Your task to perform on an android device: Show the shopping cart on target.com. Search for "apple airpods pro" on target.com, select the first entry, and add it to the cart. Image 0: 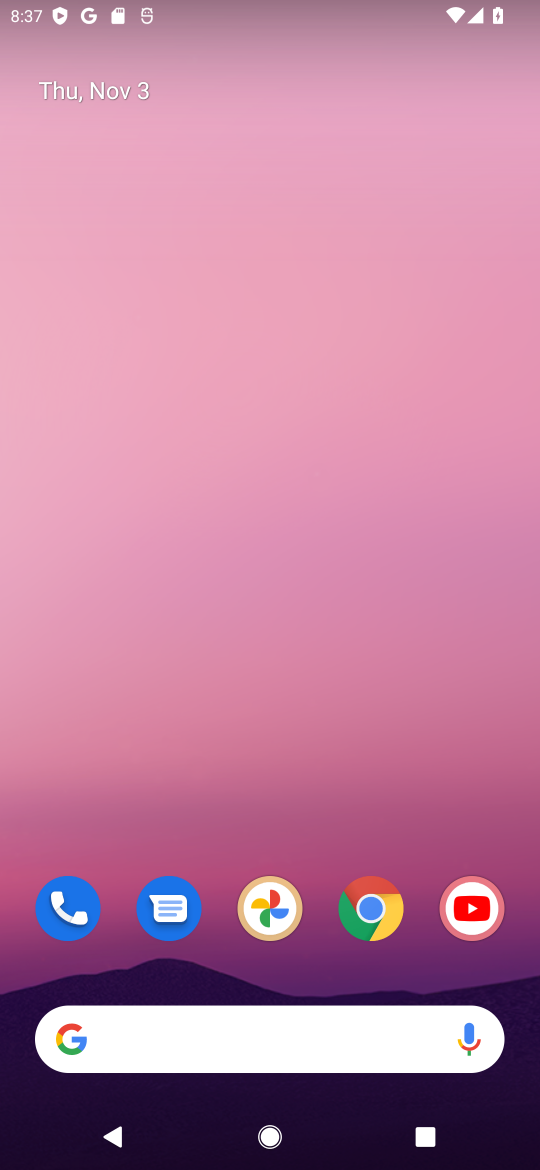
Step 0: click (376, 892)
Your task to perform on an android device: Show the shopping cart on target.com. Search for "apple airpods pro" on target.com, select the first entry, and add it to the cart. Image 1: 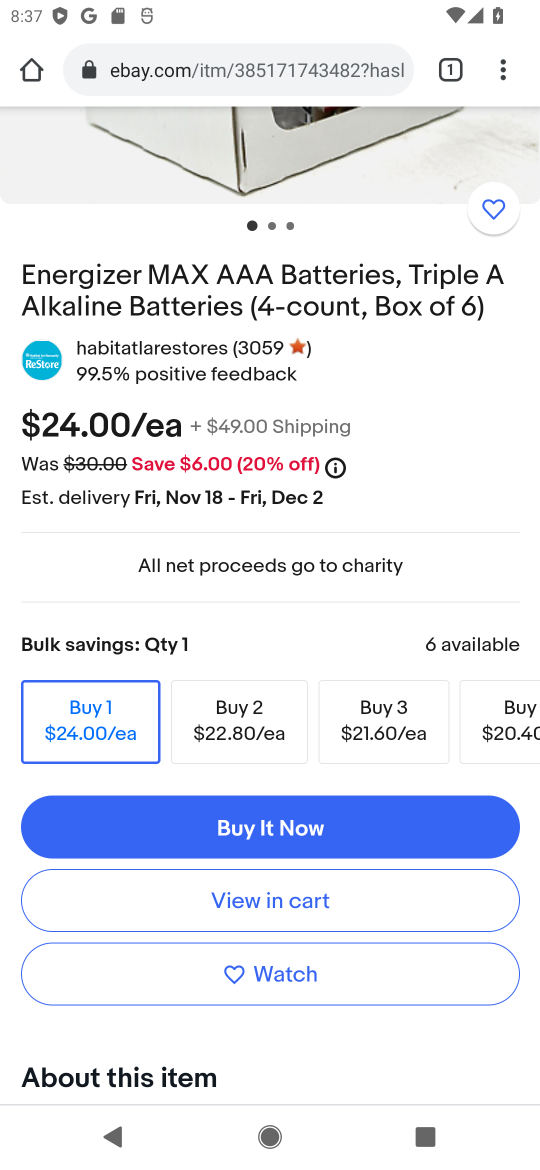
Step 1: click (40, 74)
Your task to perform on an android device: Show the shopping cart on target.com. Search for "apple airpods pro" on target.com, select the first entry, and add it to the cart. Image 2: 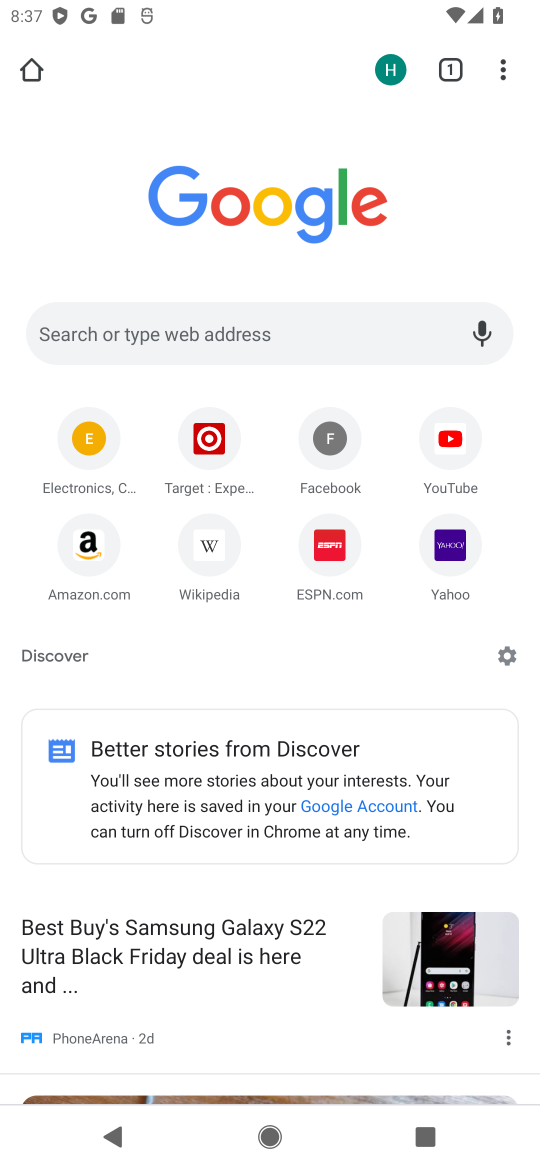
Step 2: click (211, 443)
Your task to perform on an android device: Show the shopping cart on target.com. Search for "apple airpods pro" on target.com, select the first entry, and add it to the cart. Image 3: 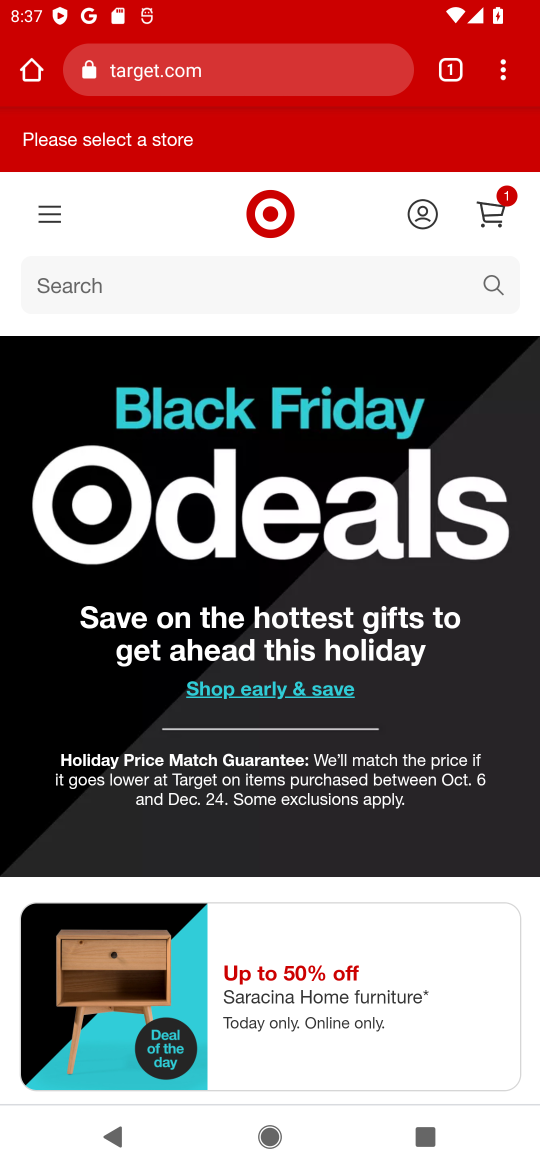
Step 3: click (501, 212)
Your task to perform on an android device: Show the shopping cart on target.com. Search for "apple airpods pro" on target.com, select the first entry, and add it to the cart. Image 4: 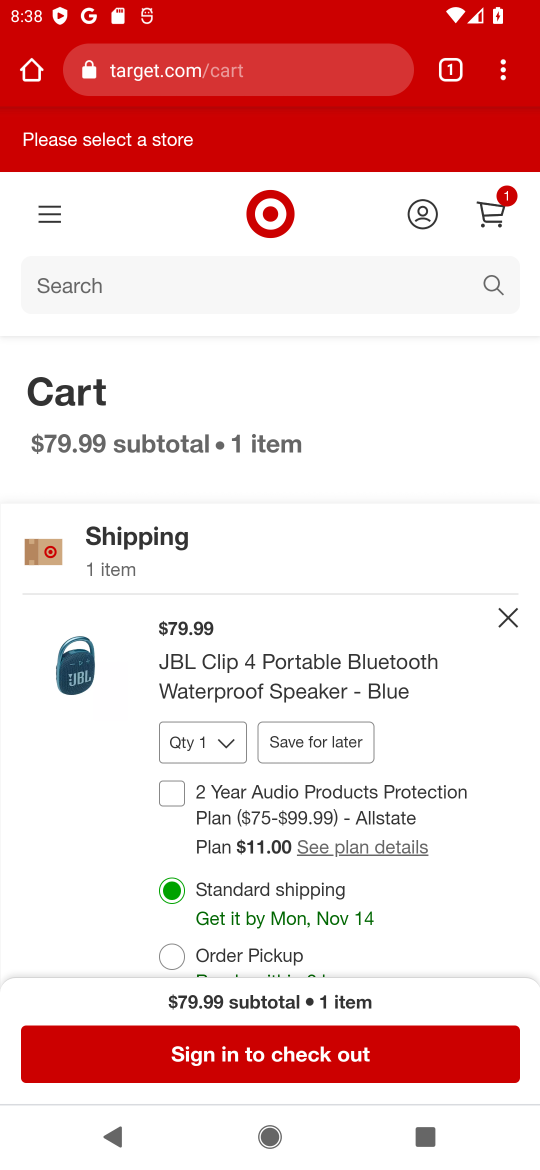
Step 4: click (324, 272)
Your task to perform on an android device: Show the shopping cart on target.com. Search for "apple airpods pro" on target.com, select the first entry, and add it to the cart. Image 5: 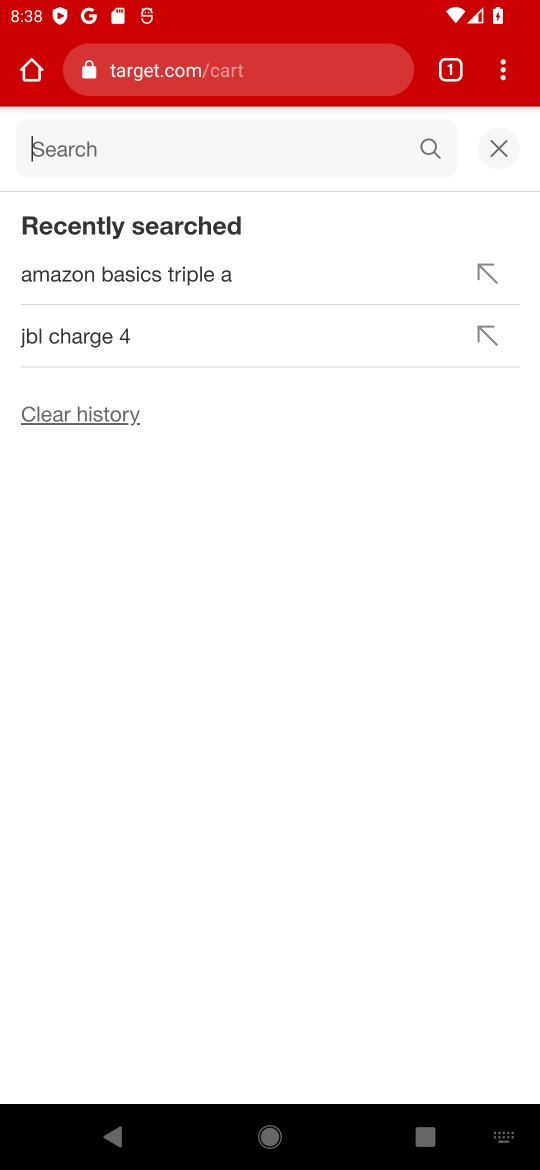
Step 5: type "apple airpods pro"
Your task to perform on an android device: Show the shopping cart on target.com. Search for "apple airpods pro" on target.com, select the first entry, and add it to the cart. Image 6: 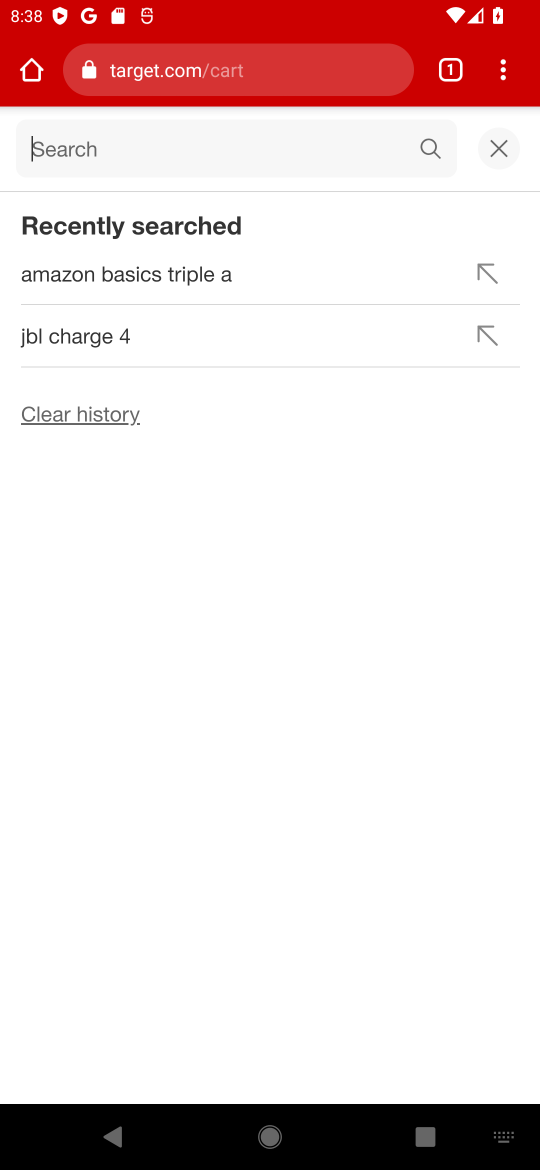
Step 6: press enter
Your task to perform on an android device: Show the shopping cart on target.com. Search for "apple airpods pro" on target.com, select the first entry, and add it to the cart. Image 7: 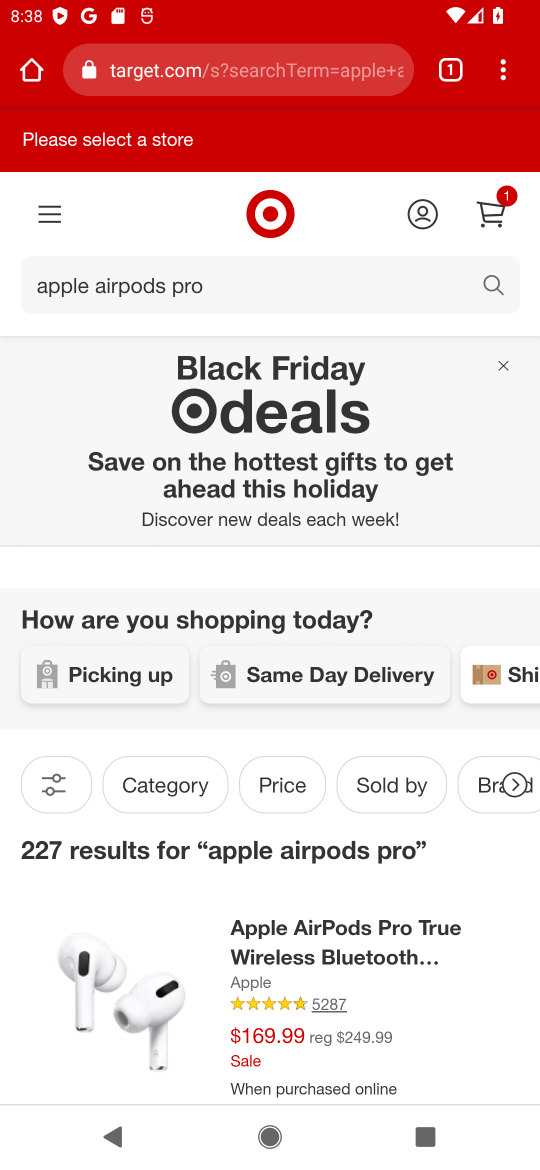
Step 7: drag from (222, 879) to (268, 507)
Your task to perform on an android device: Show the shopping cart on target.com. Search for "apple airpods pro" on target.com, select the first entry, and add it to the cart. Image 8: 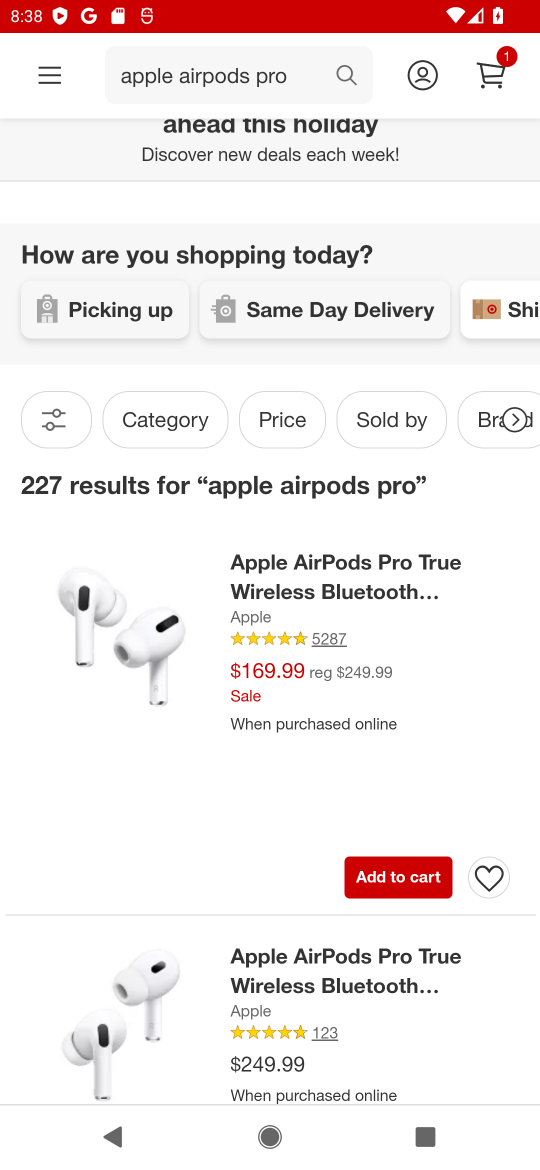
Step 8: click (86, 614)
Your task to perform on an android device: Show the shopping cart on target.com. Search for "apple airpods pro" on target.com, select the first entry, and add it to the cart. Image 9: 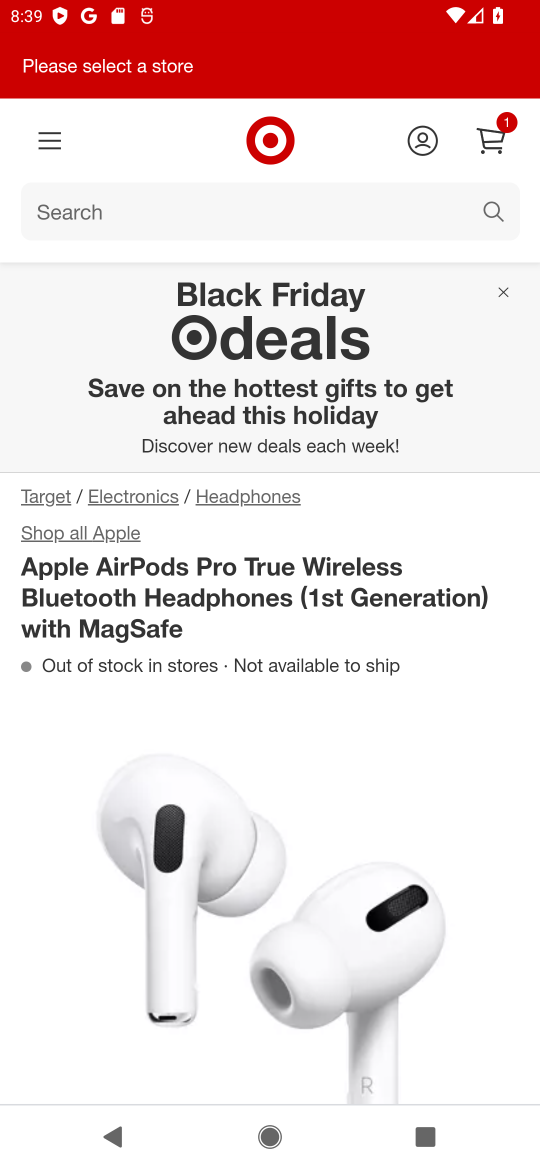
Step 9: drag from (361, 790) to (382, 287)
Your task to perform on an android device: Show the shopping cart on target.com. Search for "apple airpods pro" on target.com, select the first entry, and add it to the cart. Image 10: 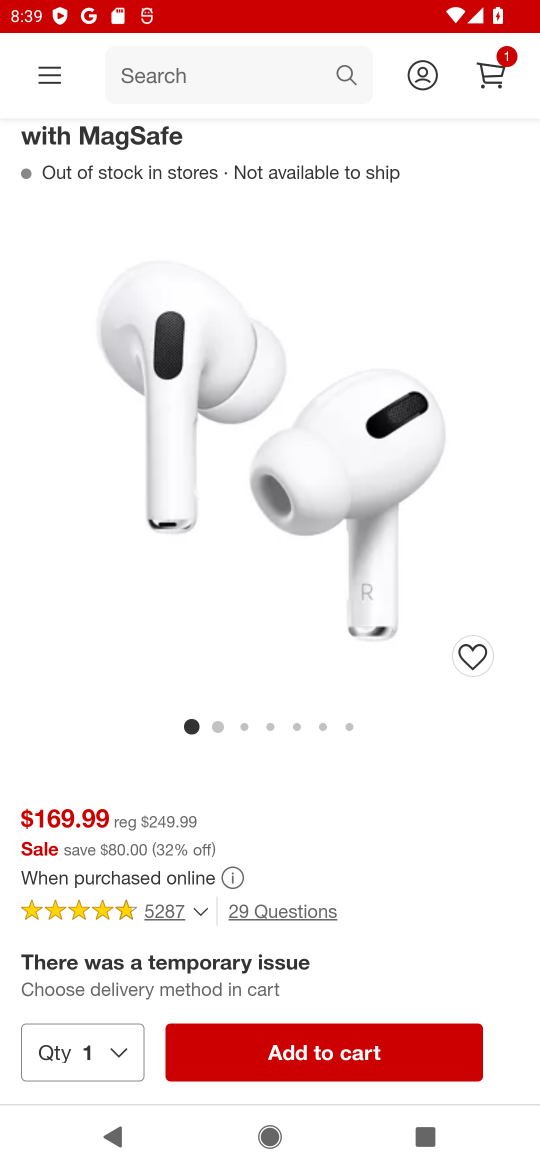
Step 10: drag from (397, 848) to (433, 521)
Your task to perform on an android device: Show the shopping cart on target.com. Search for "apple airpods pro" on target.com, select the first entry, and add it to the cart. Image 11: 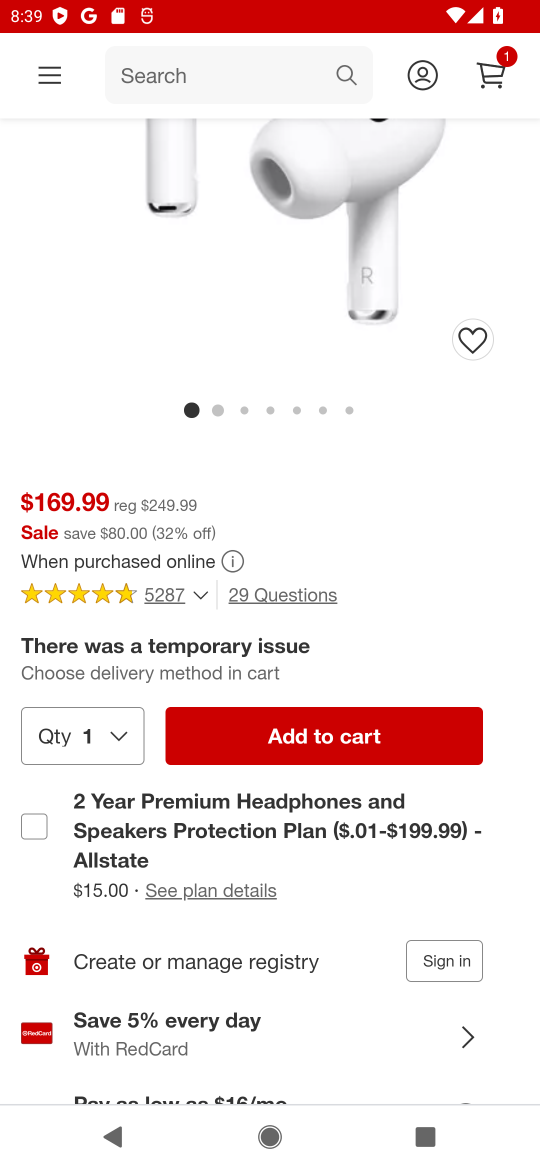
Step 11: click (373, 726)
Your task to perform on an android device: Show the shopping cart on target.com. Search for "apple airpods pro" on target.com, select the first entry, and add it to the cart. Image 12: 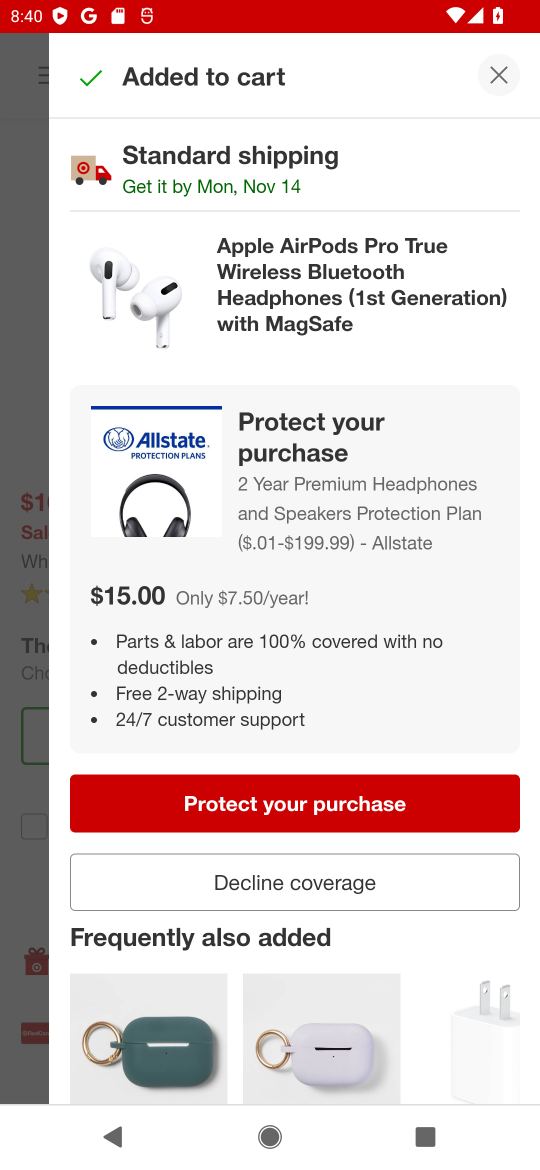
Step 12: click (499, 77)
Your task to perform on an android device: Show the shopping cart on target.com. Search for "apple airpods pro" on target.com, select the first entry, and add it to the cart. Image 13: 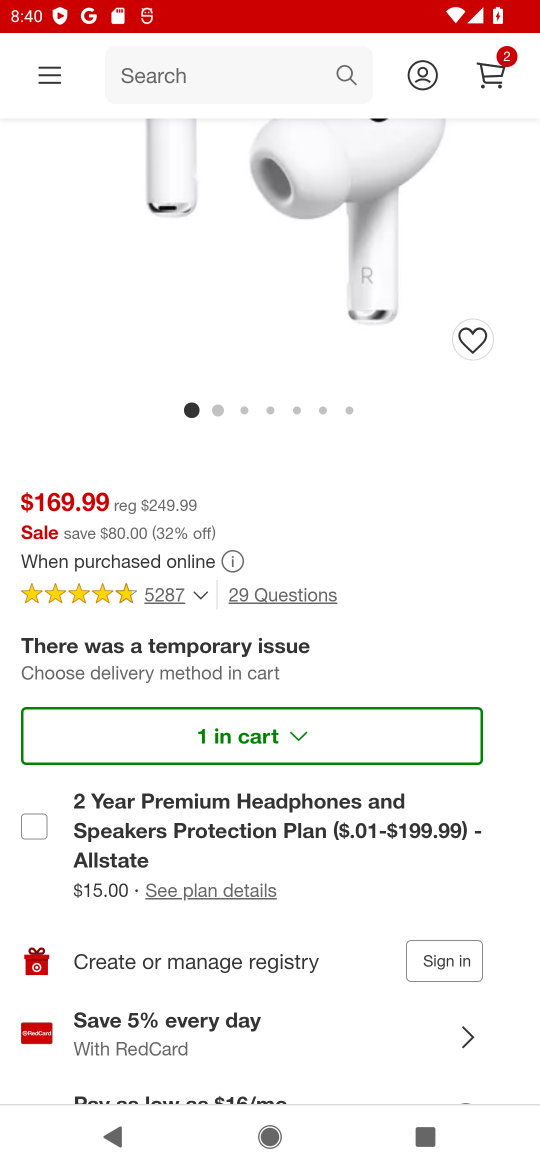
Step 13: drag from (399, 636) to (405, 211)
Your task to perform on an android device: Show the shopping cart on target.com. Search for "apple airpods pro" on target.com, select the first entry, and add it to the cart. Image 14: 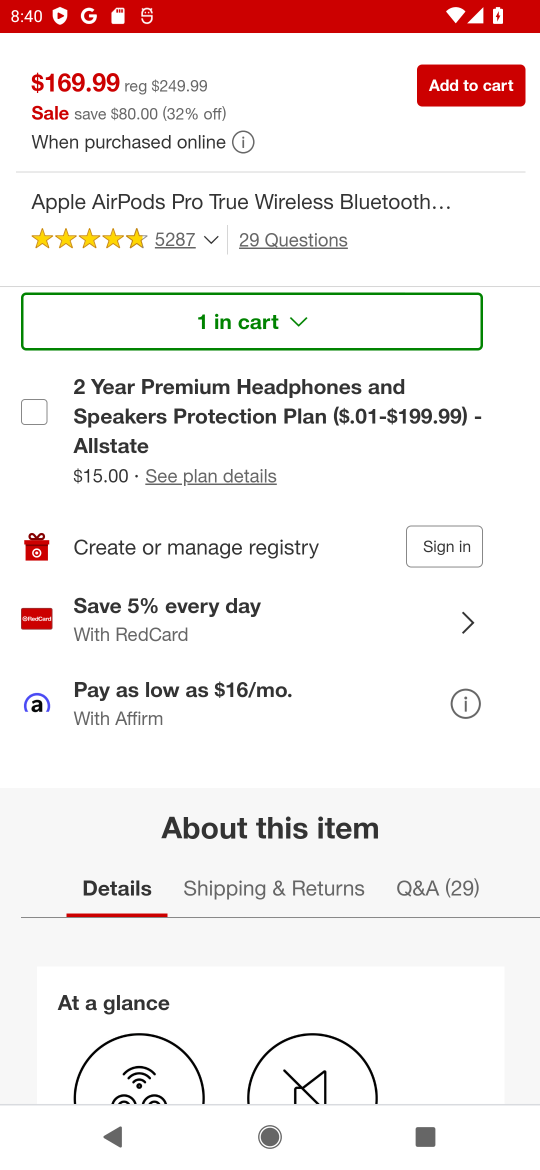
Step 14: click (514, 899)
Your task to perform on an android device: Show the shopping cart on target.com. Search for "apple airpods pro" on target.com, select the first entry, and add it to the cart. Image 15: 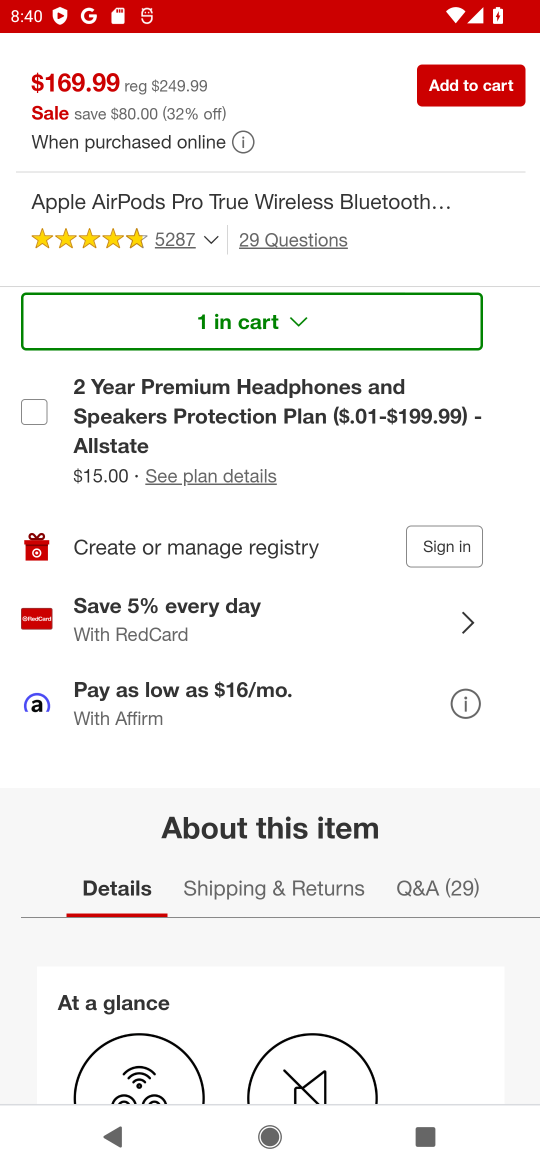
Step 15: drag from (289, 147) to (245, 860)
Your task to perform on an android device: Show the shopping cart on target.com. Search for "apple airpods pro" on target.com, select the first entry, and add it to the cart. Image 16: 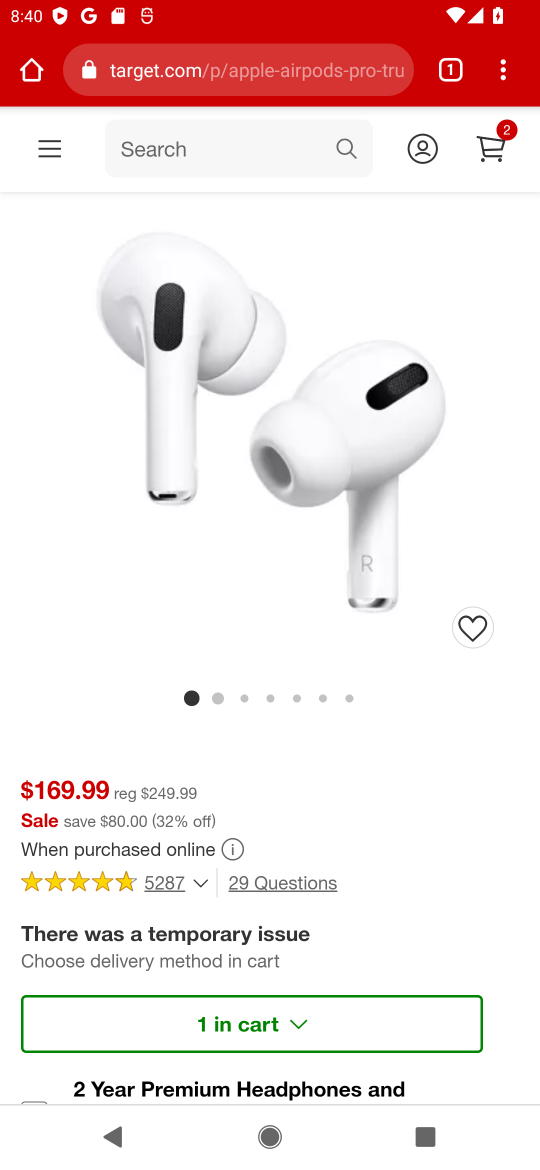
Step 16: drag from (391, 735) to (392, 410)
Your task to perform on an android device: Show the shopping cart on target.com. Search for "apple airpods pro" on target.com, select the first entry, and add it to the cart. Image 17: 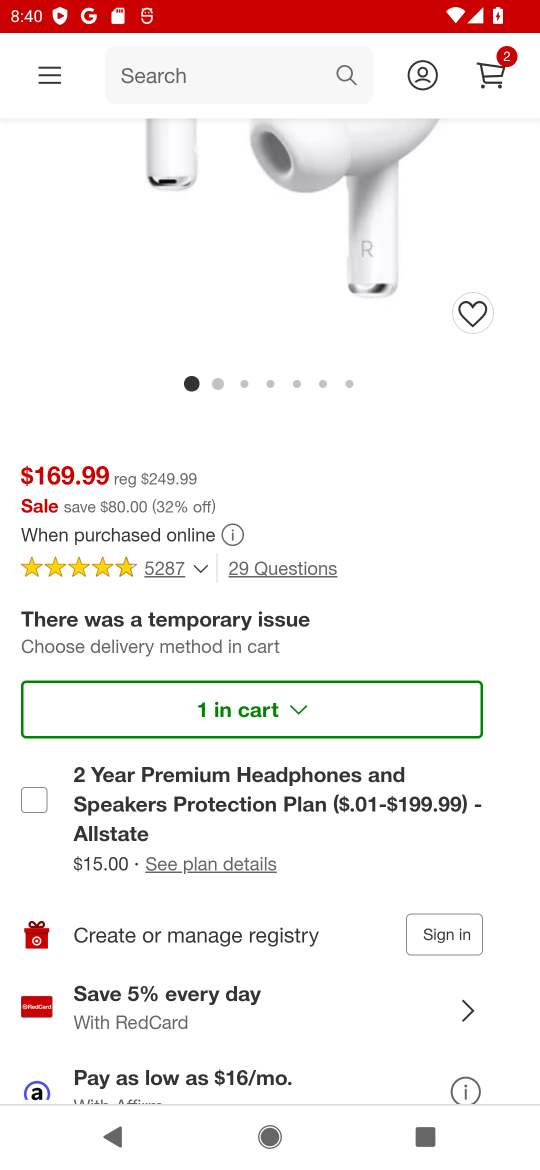
Step 17: drag from (438, 748) to (444, 443)
Your task to perform on an android device: Show the shopping cart on target.com. Search for "apple airpods pro" on target.com, select the first entry, and add it to the cart. Image 18: 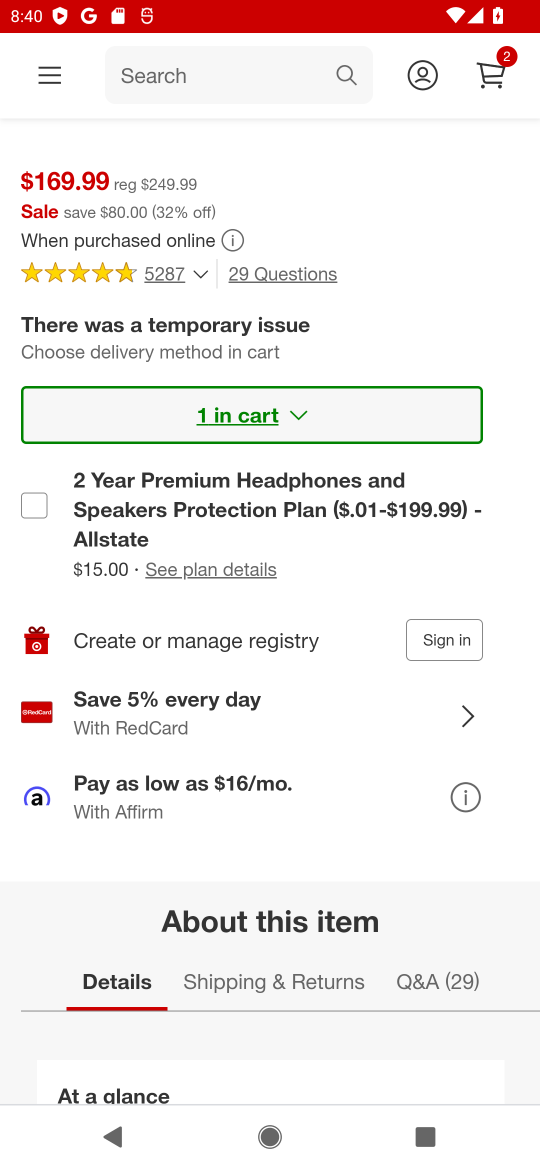
Step 18: drag from (453, 817) to (466, 508)
Your task to perform on an android device: Show the shopping cart on target.com. Search for "apple airpods pro" on target.com, select the first entry, and add it to the cart. Image 19: 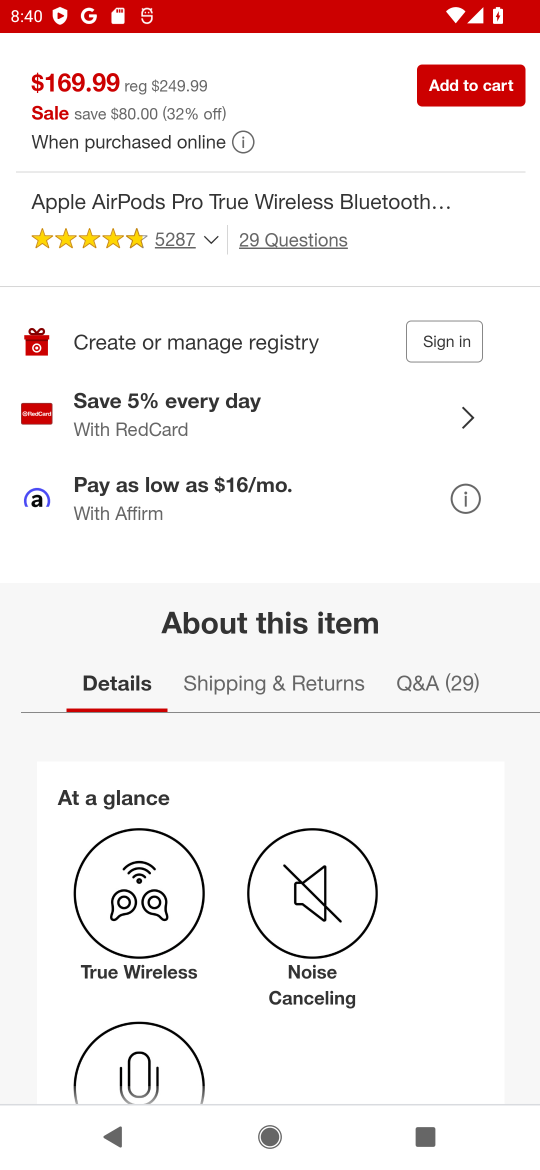
Step 19: drag from (469, 806) to (452, 873)
Your task to perform on an android device: Show the shopping cart on target.com. Search for "apple airpods pro" on target.com, select the first entry, and add it to the cart. Image 20: 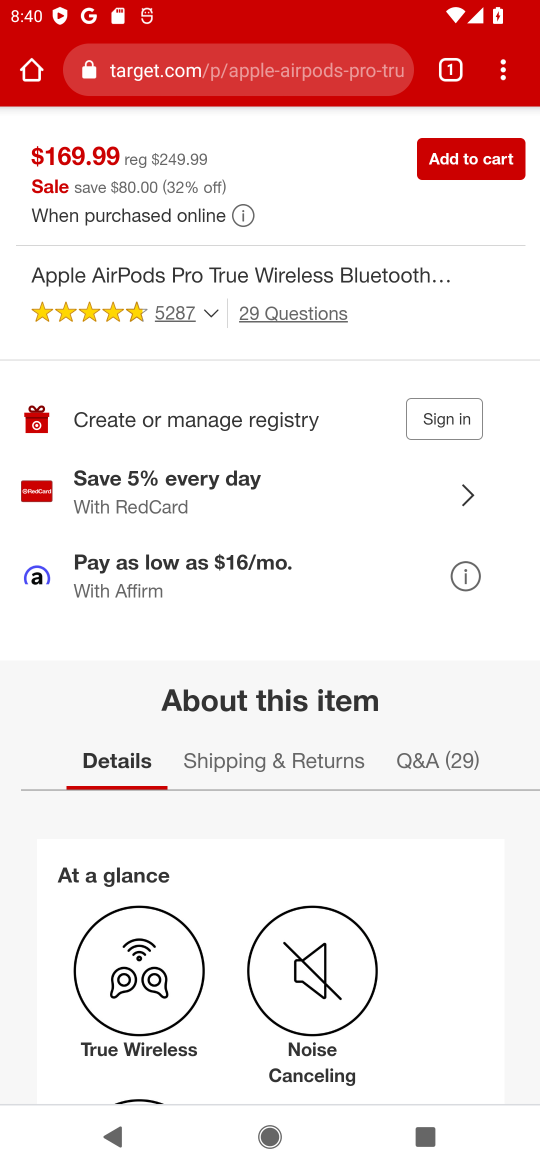
Step 20: click (463, 157)
Your task to perform on an android device: Show the shopping cart on target.com. Search for "apple airpods pro" on target.com, select the first entry, and add it to the cart. Image 21: 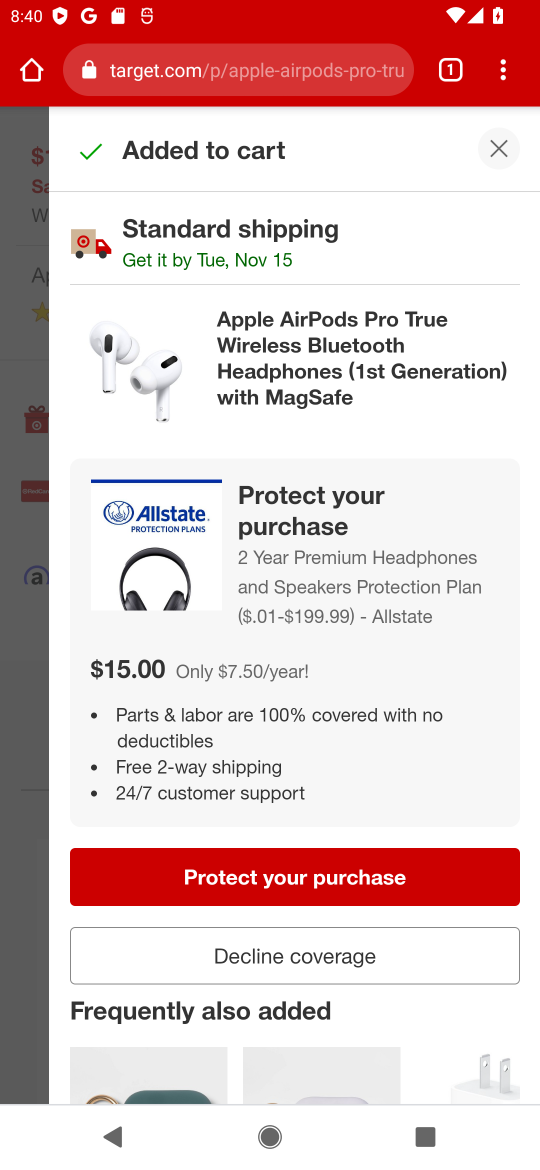
Step 21: task complete